Your task to perform on an android device: Search for Italian restaurants on Maps Image 0: 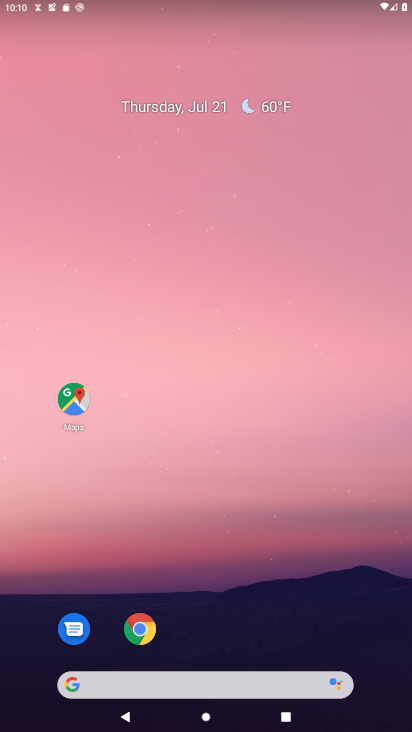
Step 0: drag from (212, 657) to (207, 57)
Your task to perform on an android device: Search for Italian restaurants on Maps Image 1: 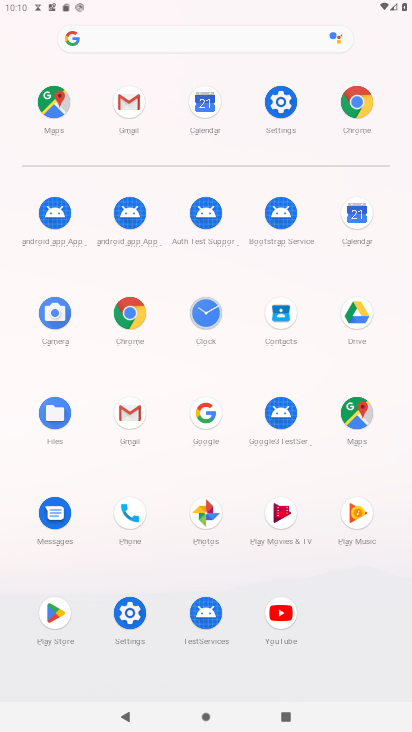
Step 1: click (60, 97)
Your task to perform on an android device: Search for Italian restaurants on Maps Image 2: 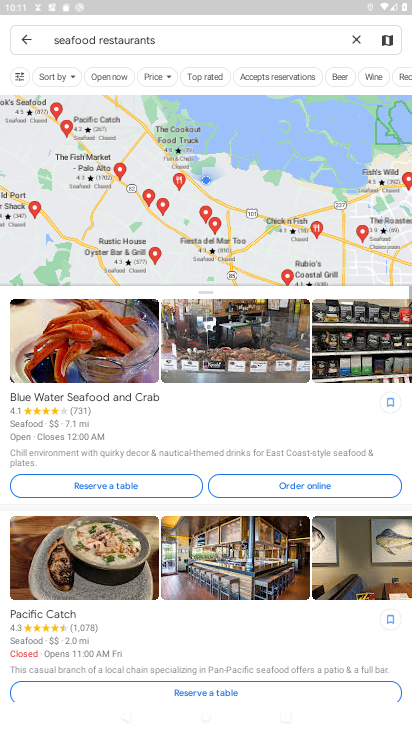
Step 2: click (362, 35)
Your task to perform on an android device: Search for Italian restaurants on Maps Image 3: 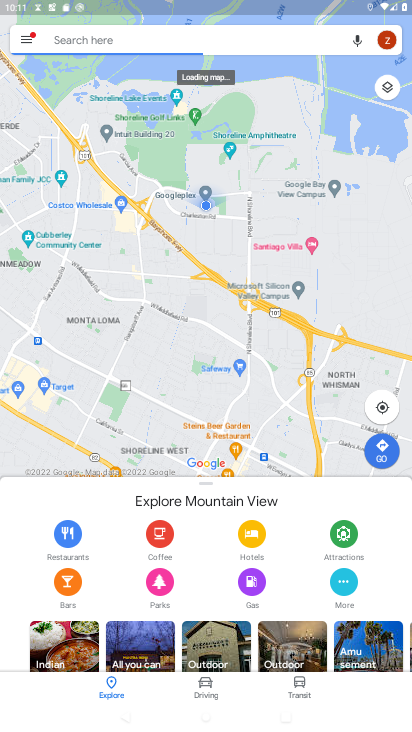
Step 3: click (161, 43)
Your task to perform on an android device: Search for Italian restaurants on Maps Image 4: 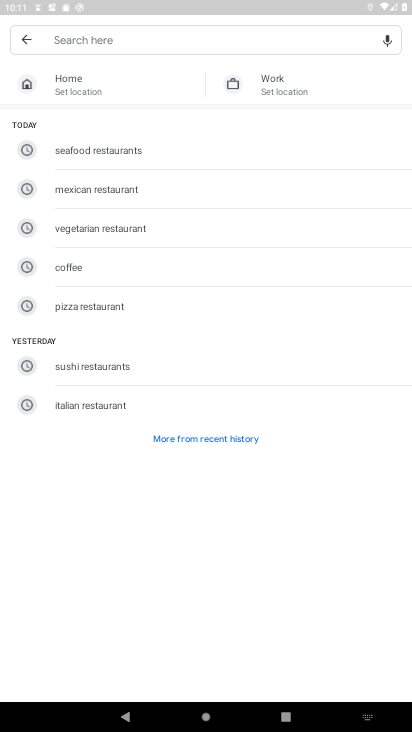
Step 4: type "Italian restaurants  "
Your task to perform on an android device: Search for Italian restaurants on Maps Image 5: 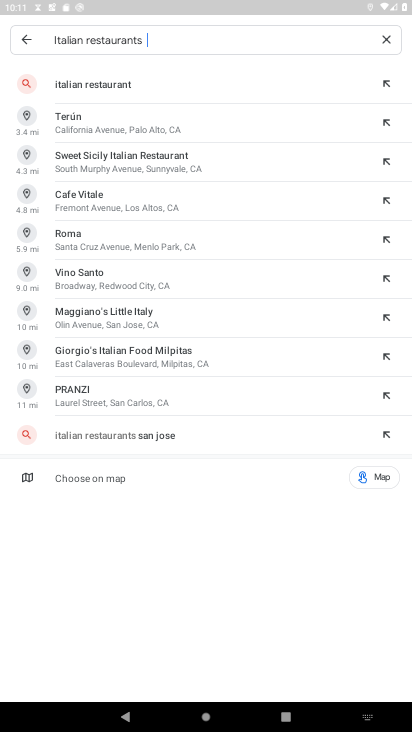
Step 5: click (128, 85)
Your task to perform on an android device: Search for Italian restaurants on Maps Image 6: 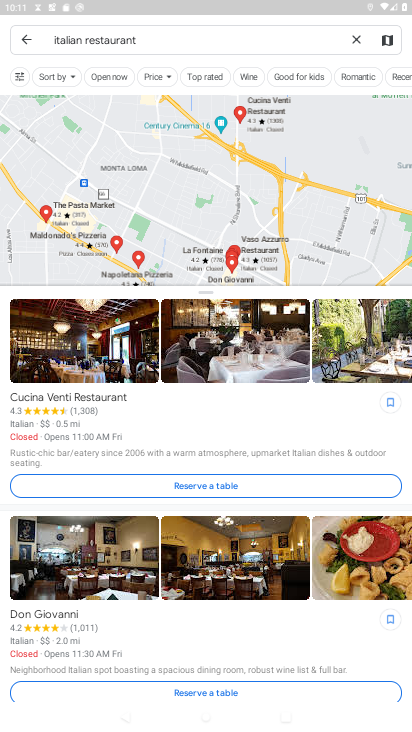
Step 6: task complete